Your task to perform on an android device: Open calendar and show me the third week of next month Image 0: 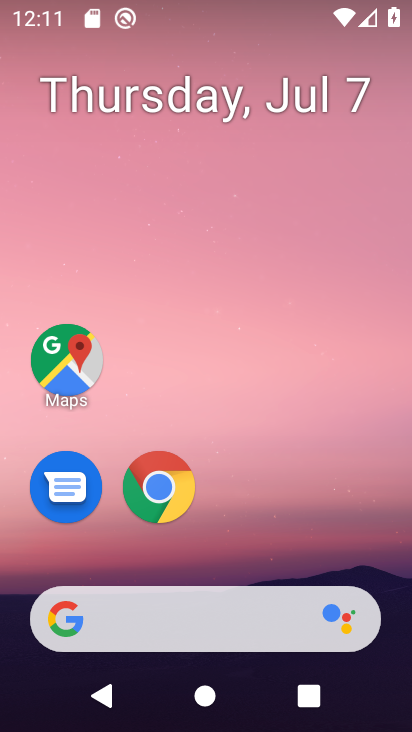
Step 0: drag from (327, 555) to (332, 139)
Your task to perform on an android device: Open calendar and show me the third week of next month Image 1: 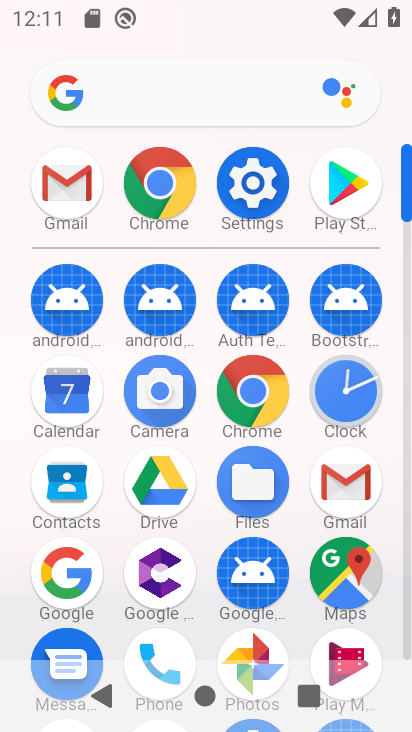
Step 1: click (71, 404)
Your task to perform on an android device: Open calendar and show me the third week of next month Image 2: 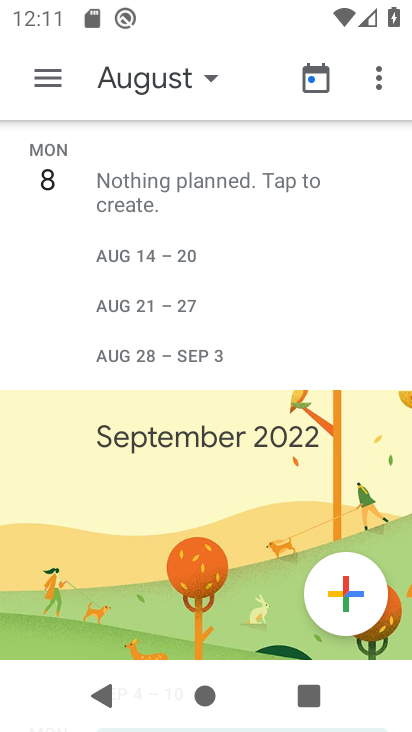
Step 2: click (214, 76)
Your task to perform on an android device: Open calendar and show me the third week of next month Image 3: 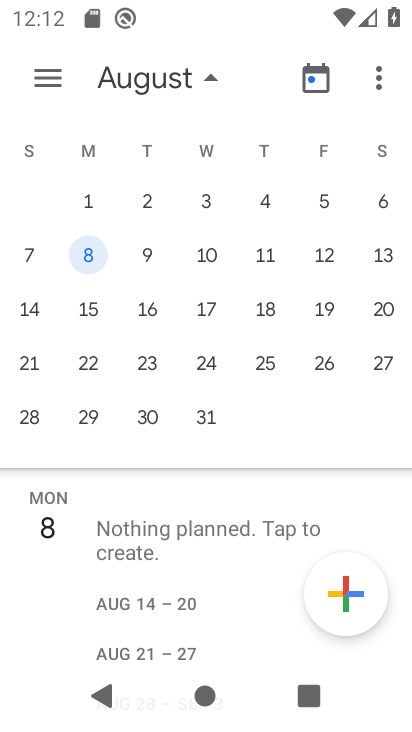
Step 3: click (88, 311)
Your task to perform on an android device: Open calendar and show me the third week of next month Image 4: 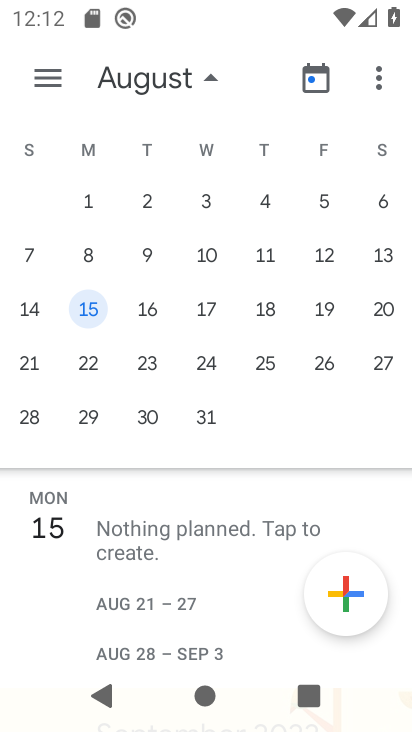
Step 4: task complete